Your task to perform on an android device: clear history in the chrome app Image 0: 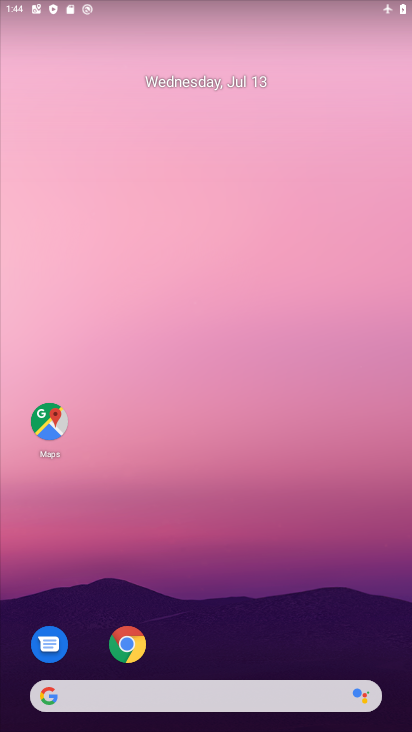
Step 0: drag from (320, 636) to (302, 137)
Your task to perform on an android device: clear history in the chrome app Image 1: 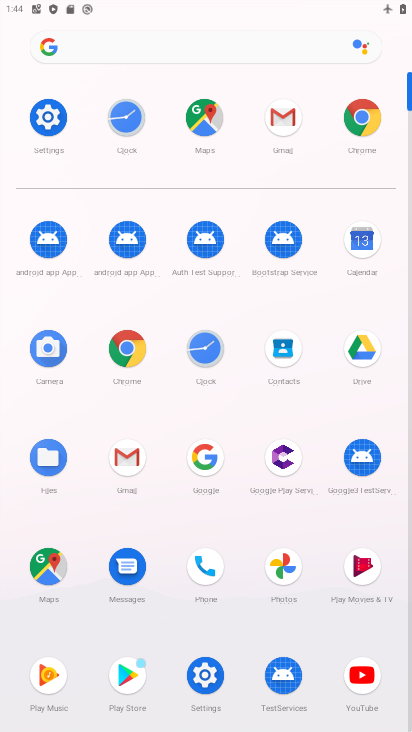
Step 1: click (361, 114)
Your task to perform on an android device: clear history in the chrome app Image 2: 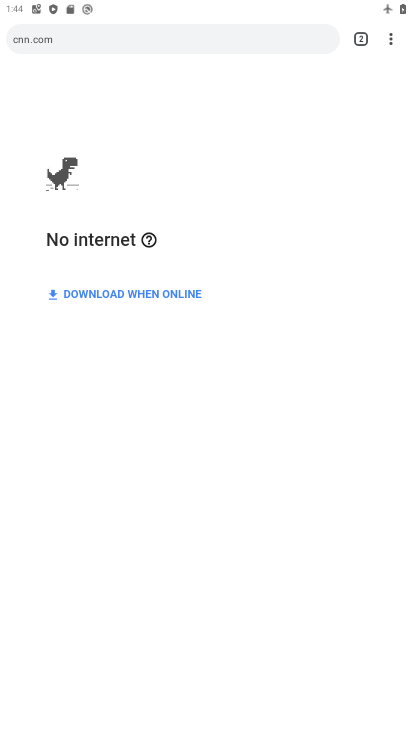
Step 2: drag from (392, 35) to (257, 226)
Your task to perform on an android device: clear history in the chrome app Image 3: 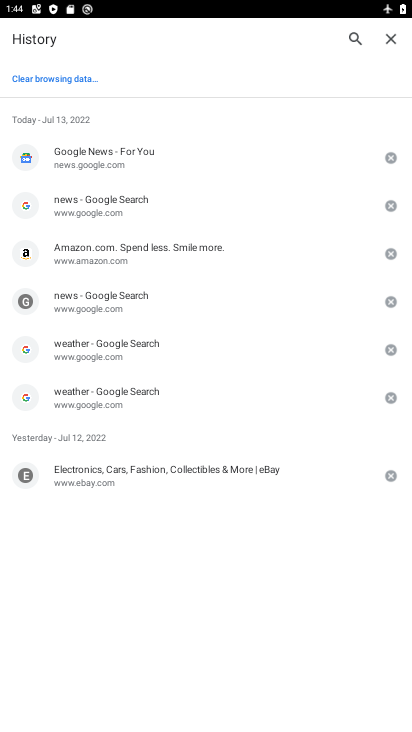
Step 3: click (63, 80)
Your task to perform on an android device: clear history in the chrome app Image 4: 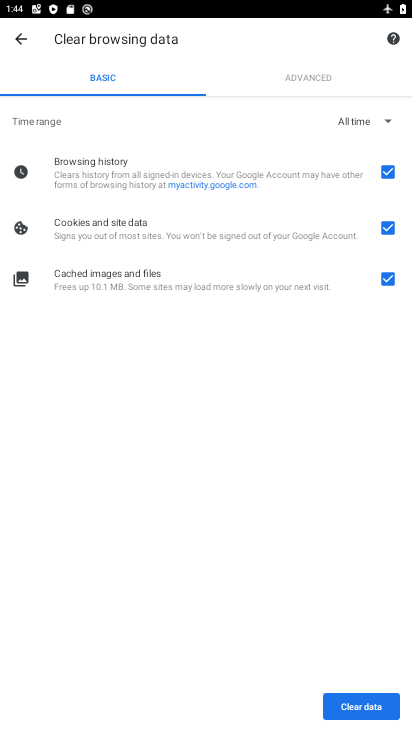
Step 4: click (360, 709)
Your task to perform on an android device: clear history in the chrome app Image 5: 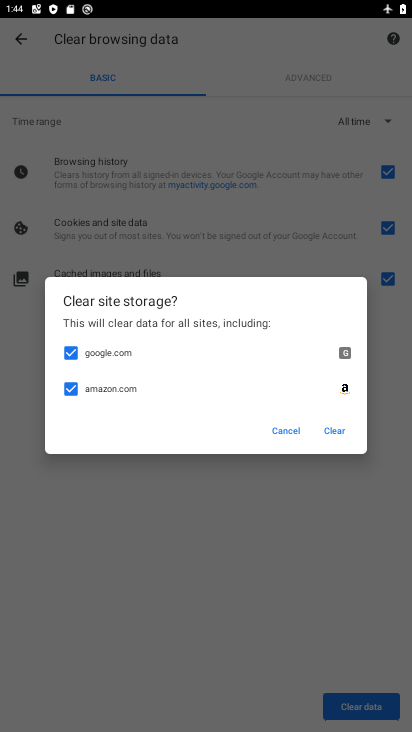
Step 5: click (341, 429)
Your task to perform on an android device: clear history in the chrome app Image 6: 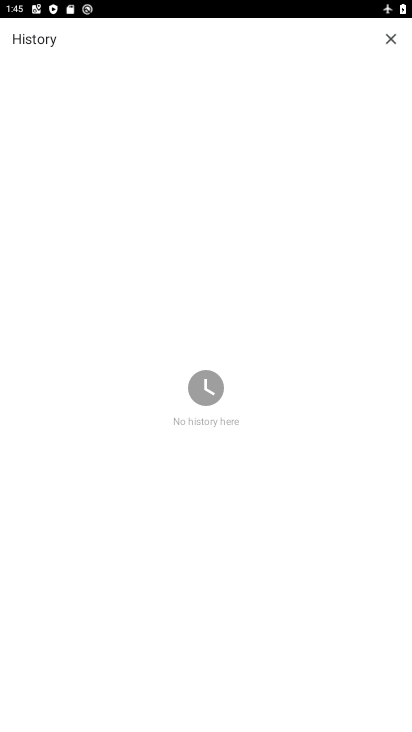
Step 6: task complete